Your task to perform on an android device: Check the weather Image 0: 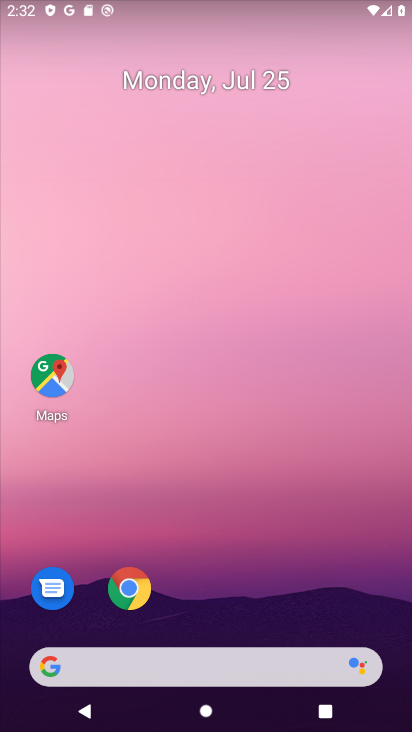
Step 0: press home button
Your task to perform on an android device: Check the weather Image 1: 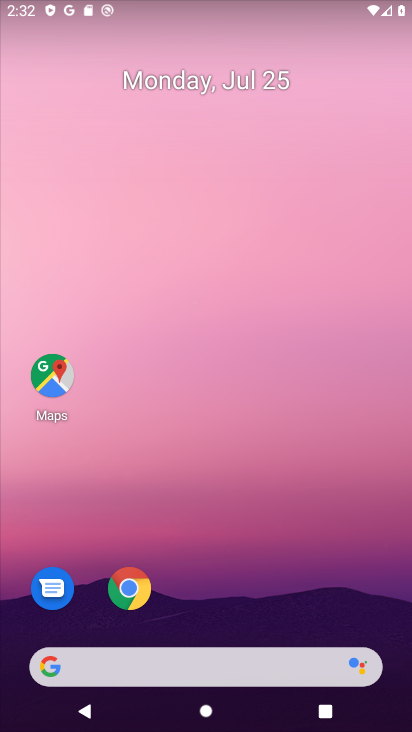
Step 1: click (160, 664)
Your task to perform on an android device: Check the weather Image 2: 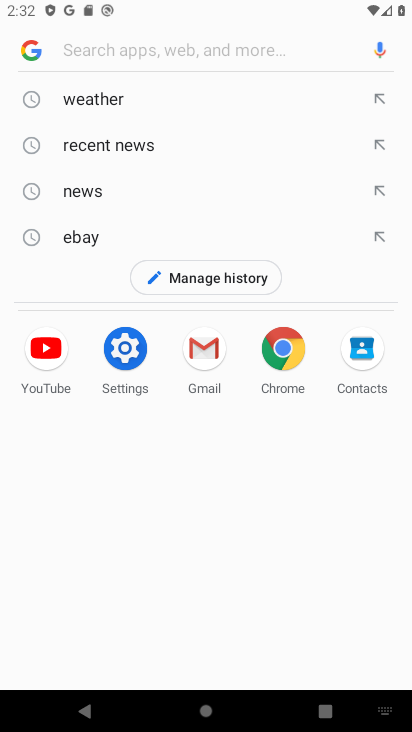
Step 2: click (120, 97)
Your task to perform on an android device: Check the weather Image 3: 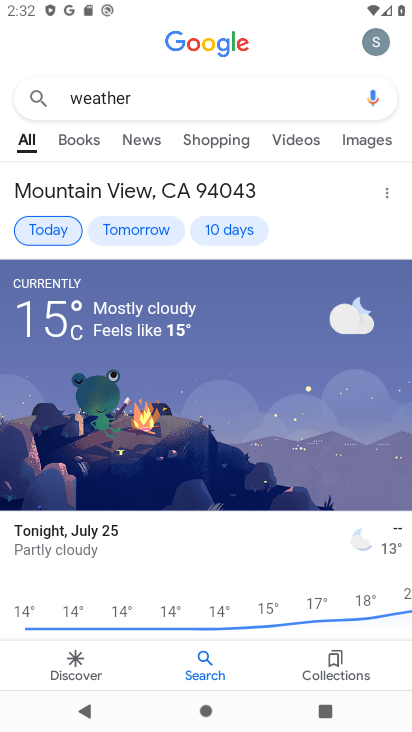
Step 3: task complete